Your task to perform on an android device: move an email to a new category in the gmail app Image 0: 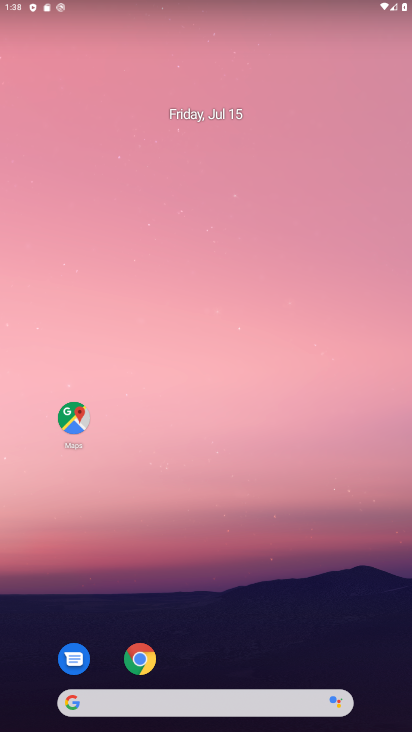
Step 0: drag from (222, 681) to (226, 344)
Your task to perform on an android device: move an email to a new category in the gmail app Image 1: 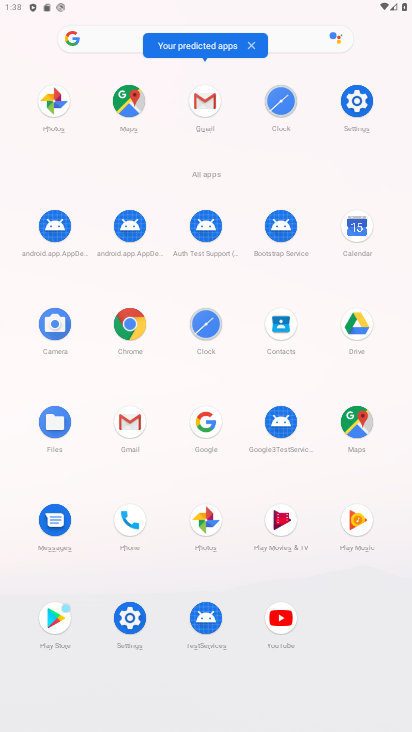
Step 1: click (129, 424)
Your task to perform on an android device: move an email to a new category in the gmail app Image 2: 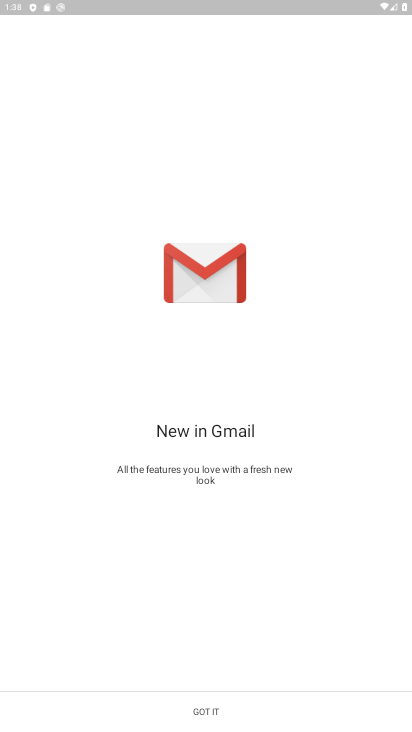
Step 2: click (208, 710)
Your task to perform on an android device: move an email to a new category in the gmail app Image 3: 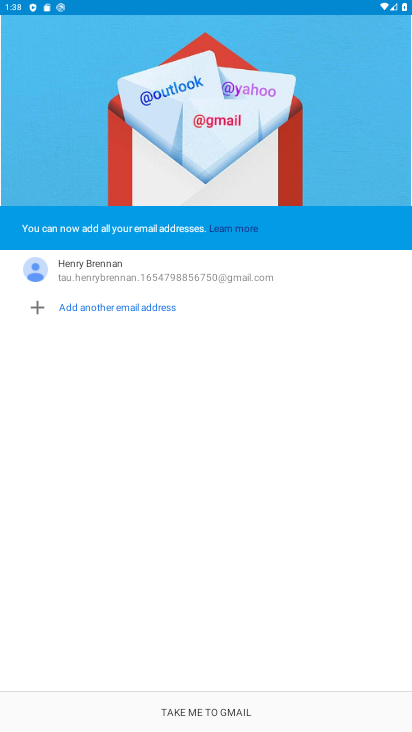
Step 3: click (208, 710)
Your task to perform on an android device: move an email to a new category in the gmail app Image 4: 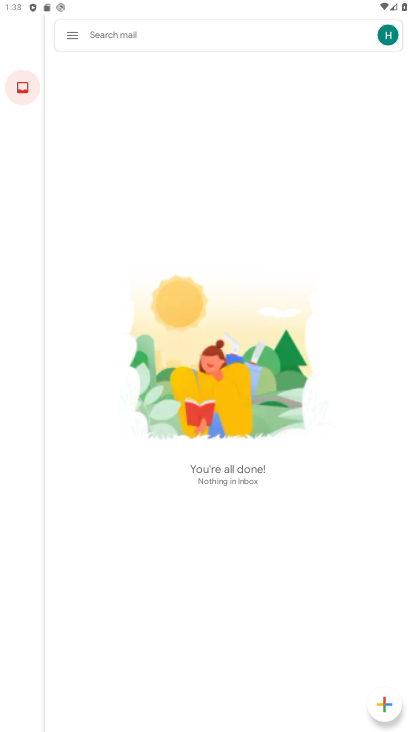
Step 4: task complete